Your task to perform on an android device: turn on the 24-hour format for clock Image 0: 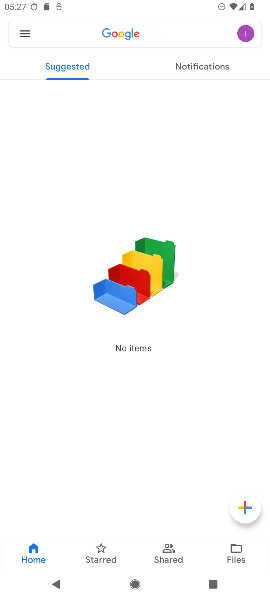
Step 0: press home button
Your task to perform on an android device: turn on the 24-hour format for clock Image 1: 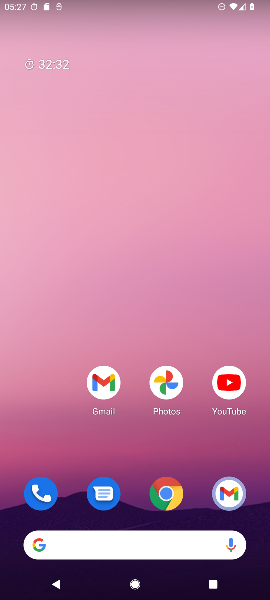
Step 1: drag from (64, 446) to (66, 203)
Your task to perform on an android device: turn on the 24-hour format for clock Image 2: 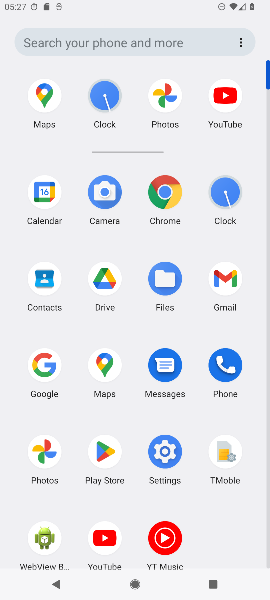
Step 2: click (221, 191)
Your task to perform on an android device: turn on the 24-hour format for clock Image 3: 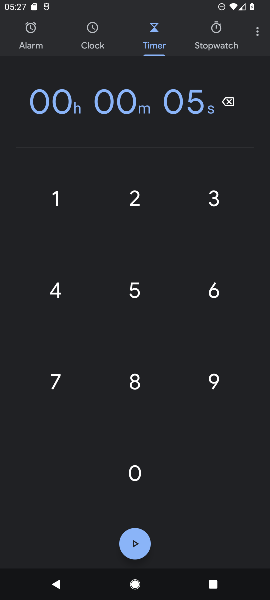
Step 3: click (257, 34)
Your task to perform on an android device: turn on the 24-hour format for clock Image 4: 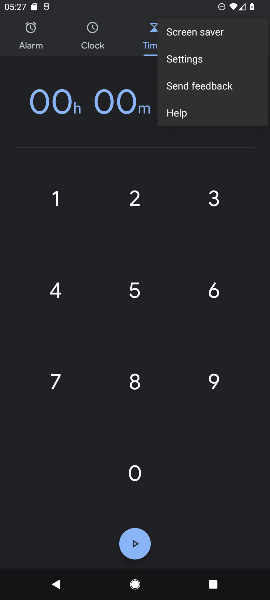
Step 4: click (202, 70)
Your task to perform on an android device: turn on the 24-hour format for clock Image 5: 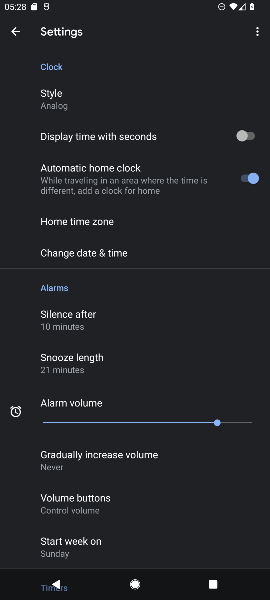
Step 5: drag from (197, 313) to (203, 247)
Your task to perform on an android device: turn on the 24-hour format for clock Image 6: 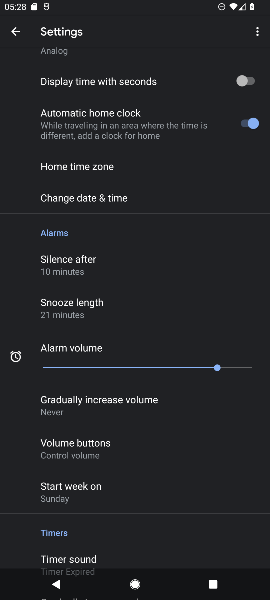
Step 6: drag from (186, 393) to (212, 279)
Your task to perform on an android device: turn on the 24-hour format for clock Image 7: 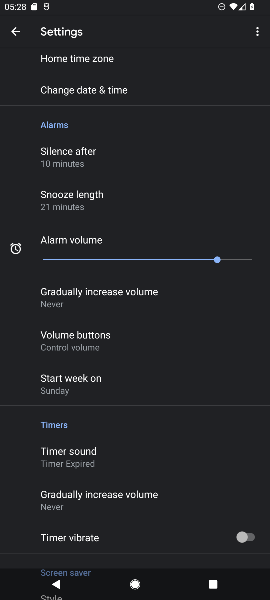
Step 7: drag from (209, 377) to (217, 287)
Your task to perform on an android device: turn on the 24-hour format for clock Image 8: 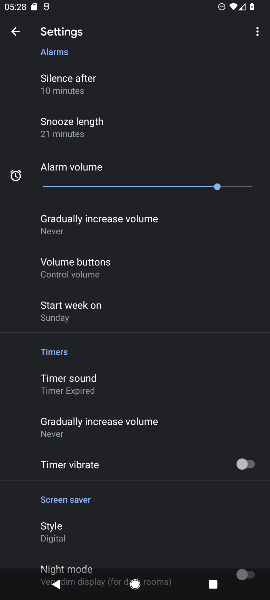
Step 8: drag from (201, 424) to (206, 308)
Your task to perform on an android device: turn on the 24-hour format for clock Image 9: 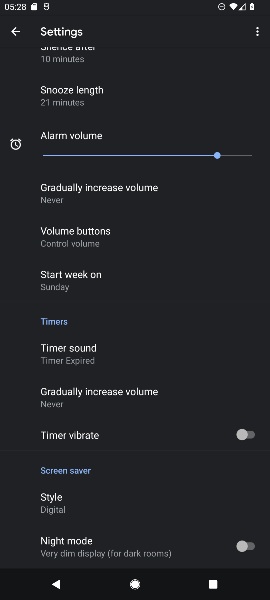
Step 9: drag from (213, 205) to (212, 288)
Your task to perform on an android device: turn on the 24-hour format for clock Image 10: 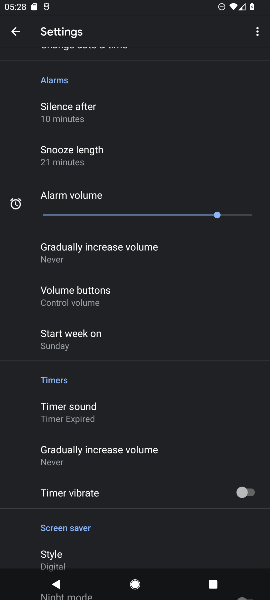
Step 10: drag from (219, 153) to (221, 239)
Your task to perform on an android device: turn on the 24-hour format for clock Image 11: 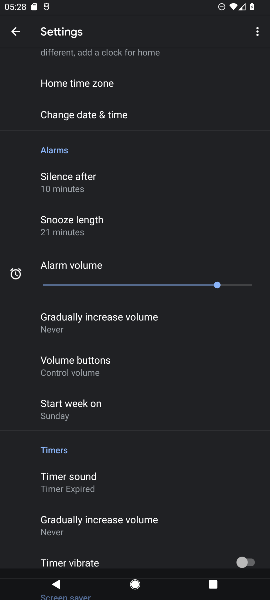
Step 11: drag from (215, 135) to (207, 276)
Your task to perform on an android device: turn on the 24-hour format for clock Image 12: 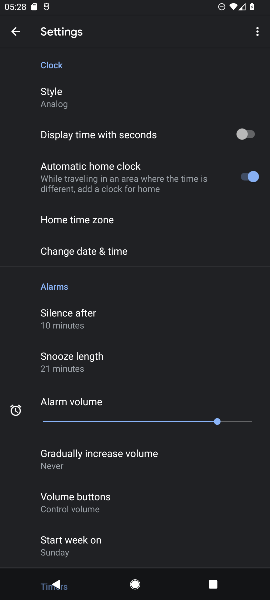
Step 12: drag from (212, 96) to (216, 255)
Your task to perform on an android device: turn on the 24-hour format for clock Image 13: 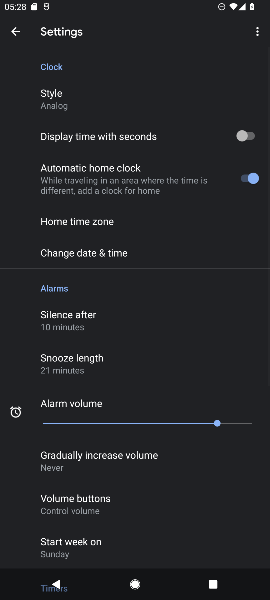
Step 13: click (148, 254)
Your task to perform on an android device: turn on the 24-hour format for clock Image 14: 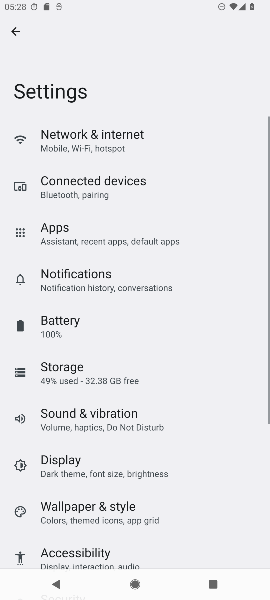
Step 14: task complete